Your task to perform on an android device: Go to Android settings Image 0: 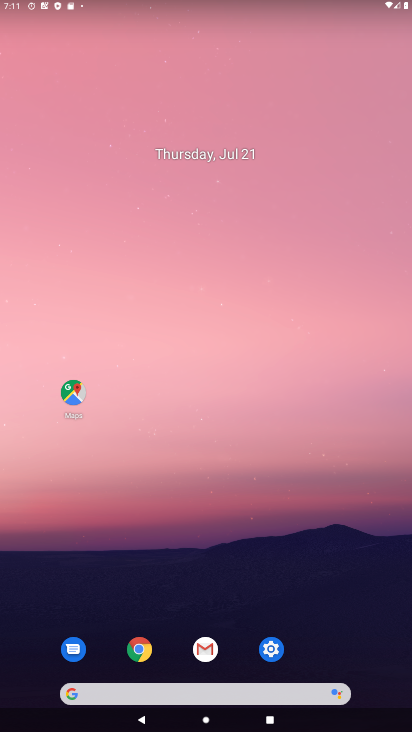
Step 0: click (277, 663)
Your task to perform on an android device: Go to Android settings Image 1: 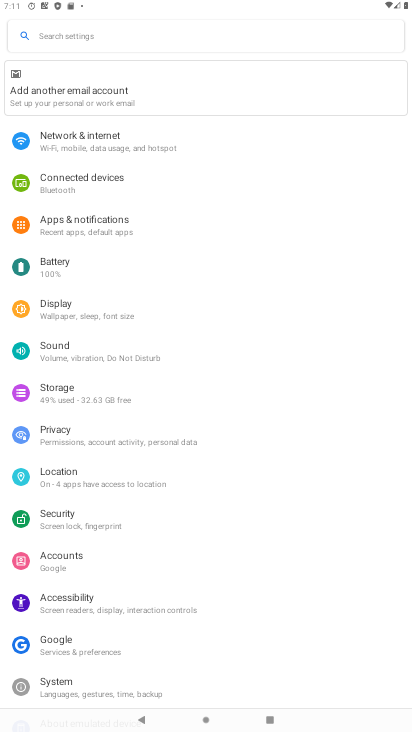
Step 1: click (76, 39)
Your task to perform on an android device: Go to Android settings Image 2: 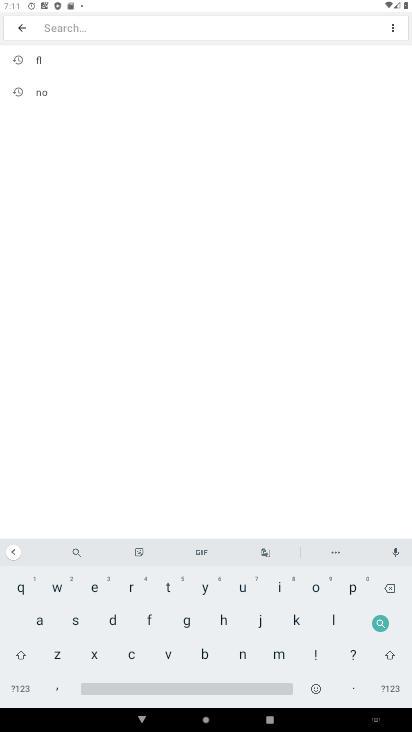
Step 2: click (39, 620)
Your task to perform on an android device: Go to Android settings Image 3: 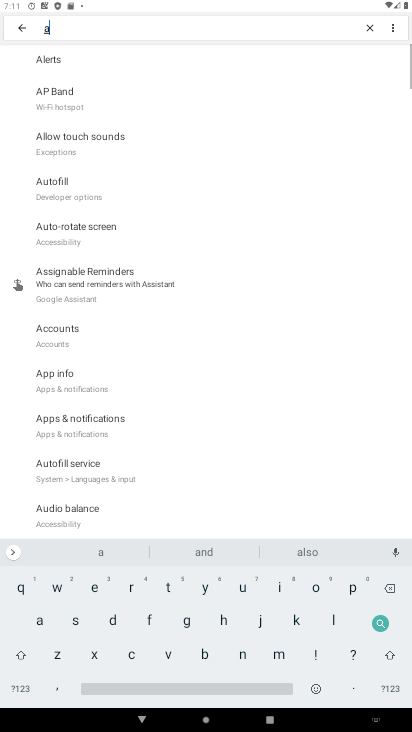
Step 3: click (239, 657)
Your task to perform on an android device: Go to Android settings Image 4: 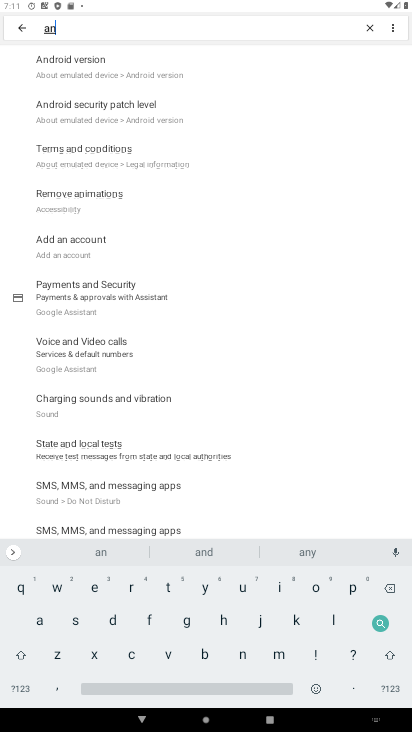
Step 4: click (99, 68)
Your task to perform on an android device: Go to Android settings Image 5: 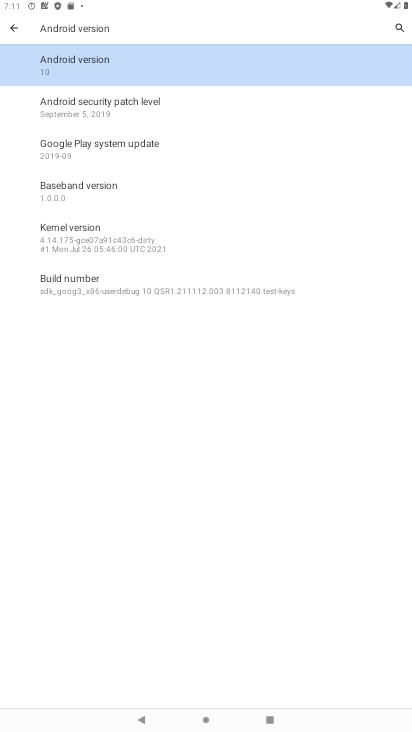
Step 5: click (100, 66)
Your task to perform on an android device: Go to Android settings Image 6: 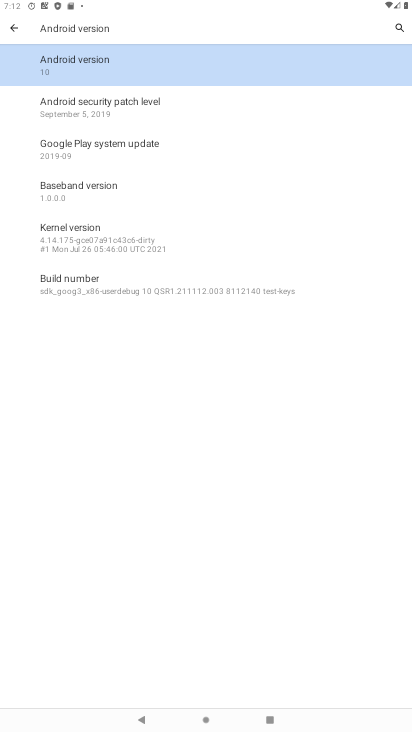
Step 6: task complete